Your task to perform on an android device: open sync settings in chrome Image 0: 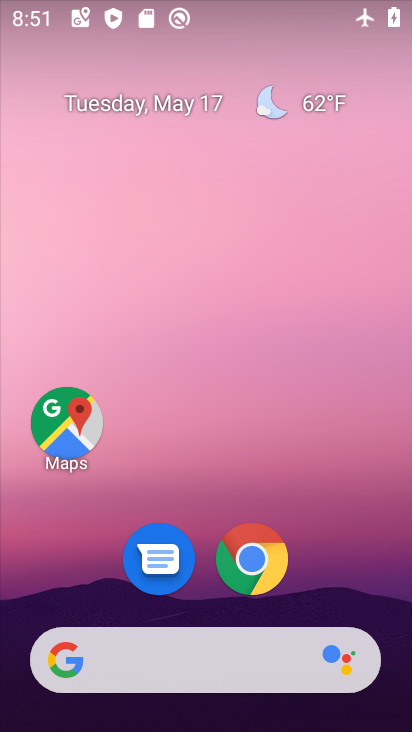
Step 0: click (278, 581)
Your task to perform on an android device: open sync settings in chrome Image 1: 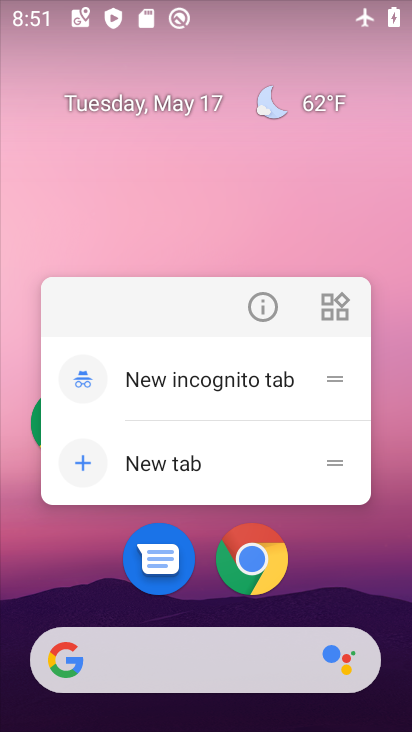
Step 1: click (263, 542)
Your task to perform on an android device: open sync settings in chrome Image 2: 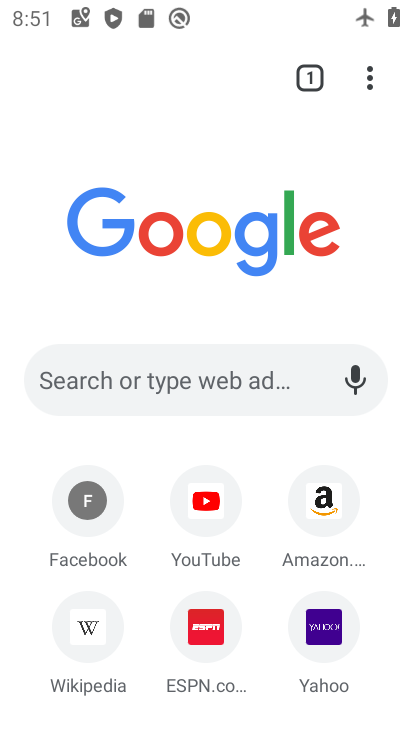
Step 2: drag from (366, 80) to (152, 612)
Your task to perform on an android device: open sync settings in chrome Image 3: 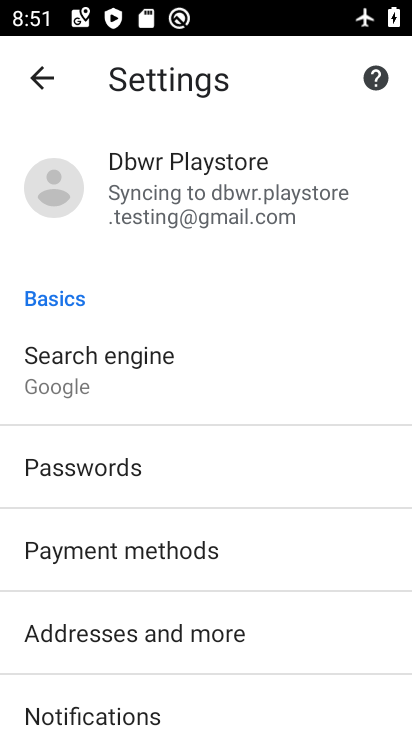
Step 3: click (286, 182)
Your task to perform on an android device: open sync settings in chrome Image 4: 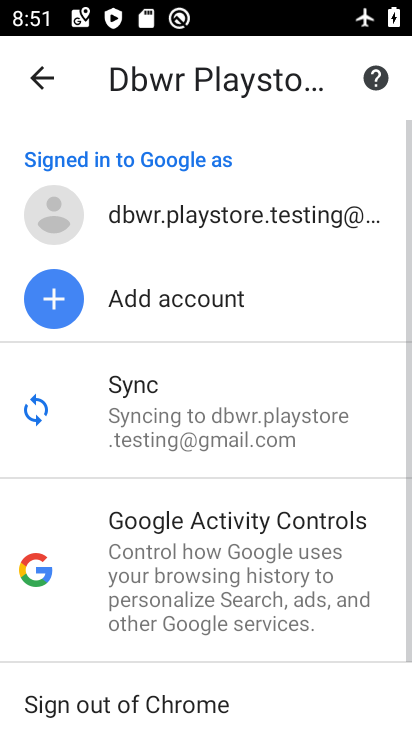
Step 4: click (243, 433)
Your task to perform on an android device: open sync settings in chrome Image 5: 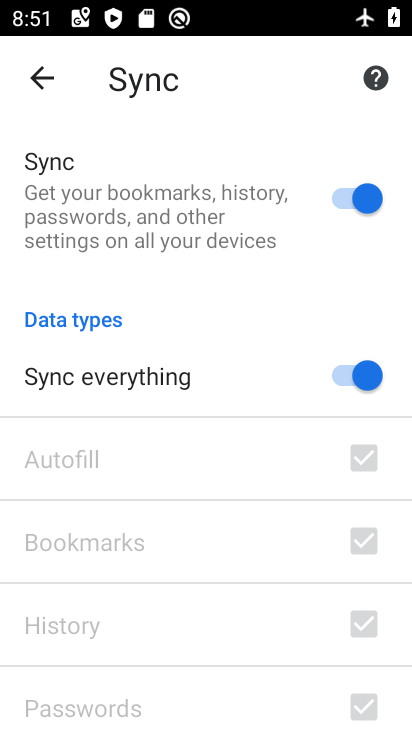
Step 5: task complete